Your task to perform on an android device: Clear the shopping cart on bestbuy.com. Add razer naga to the cart on bestbuy.com Image 0: 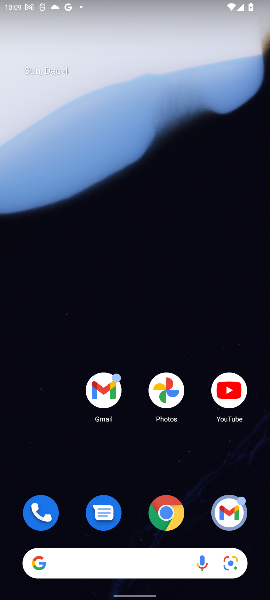
Step 0: click (166, 508)
Your task to perform on an android device: Clear the shopping cart on bestbuy.com. Add razer naga to the cart on bestbuy.com Image 1: 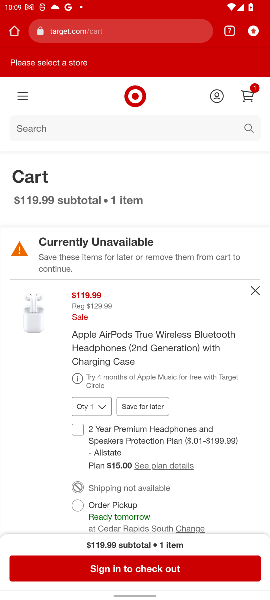
Step 1: click (233, 28)
Your task to perform on an android device: Clear the shopping cart on bestbuy.com. Add razer naga to the cart on bestbuy.com Image 2: 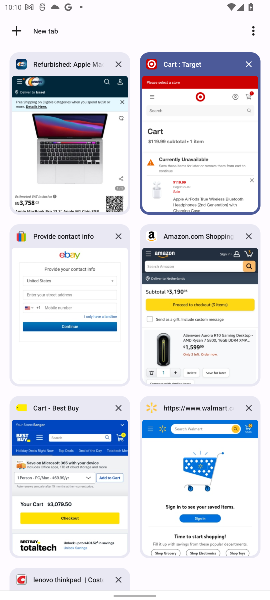
Step 2: click (76, 410)
Your task to perform on an android device: Clear the shopping cart on bestbuy.com. Add razer naga to the cart on bestbuy.com Image 3: 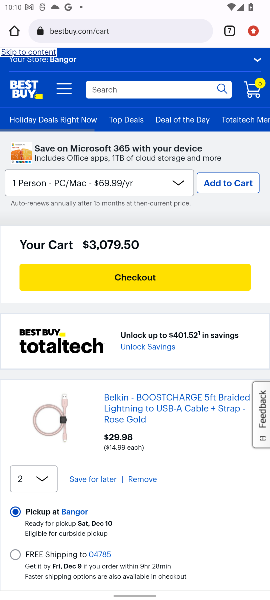
Step 3: click (133, 476)
Your task to perform on an android device: Clear the shopping cart on bestbuy.com. Add razer naga to the cart on bestbuy.com Image 4: 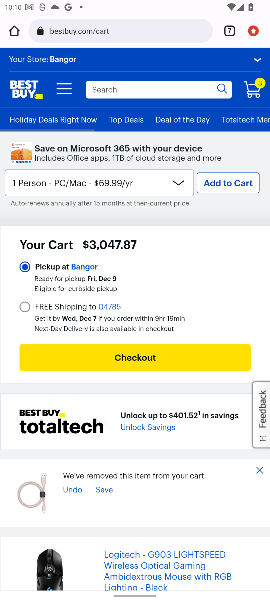
Step 4: drag from (130, 495) to (155, 303)
Your task to perform on an android device: Clear the shopping cart on bestbuy.com. Add razer naga to the cart on bestbuy.com Image 5: 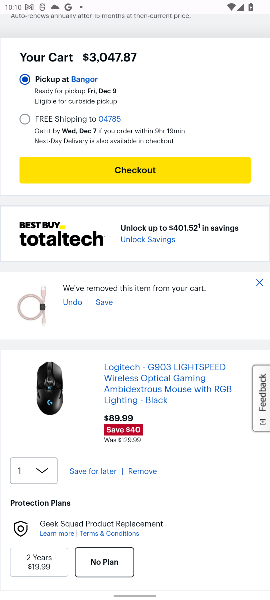
Step 5: click (142, 468)
Your task to perform on an android device: Clear the shopping cart on bestbuy.com. Add razer naga to the cart on bestbuy.com Image 6: 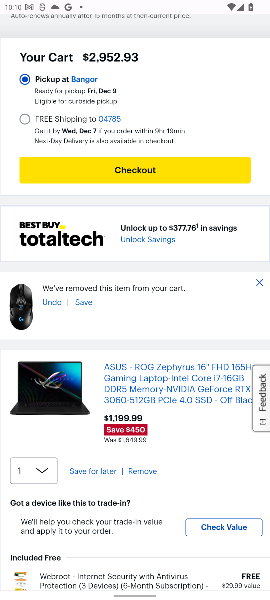
Step 6: click (142, 468)
Your task to perform on an android device: Clear the shopping cart on bestbuy.com. Add razer naga to the cart on bestbuy.com Image 7: 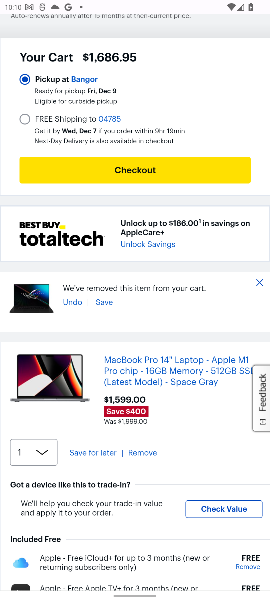
Step 7: click (139, 450)
Your task to perform on an android device: Clear the shopping cart on bestbuy.com. Add razer naga to the cart on bestbuy.com Image 8: 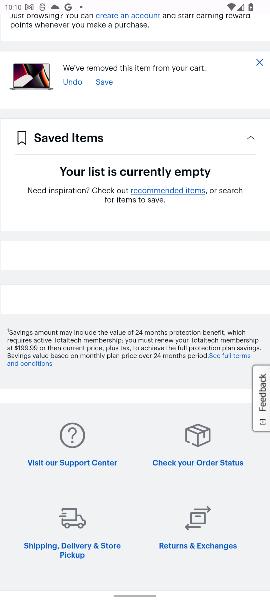
Step 8: drag from (134, 52) to (126, 354)
Your task to perform on an android device: Clear the shopping cart on bestbuy.com. Add razer naga to the cart on bestbuy.com Image 9: 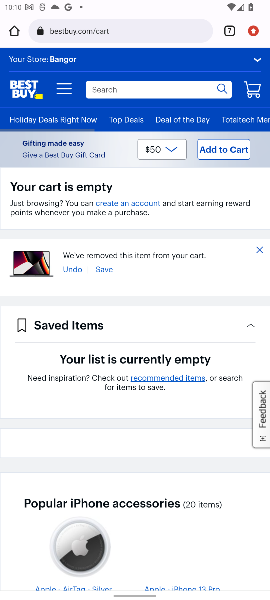
Step 9: click (139, 89)
Your task to perform on an android device: Clear the shopping cart on bestbuy.com. Add razer naga to the cart on bestbuy.com Image 10: 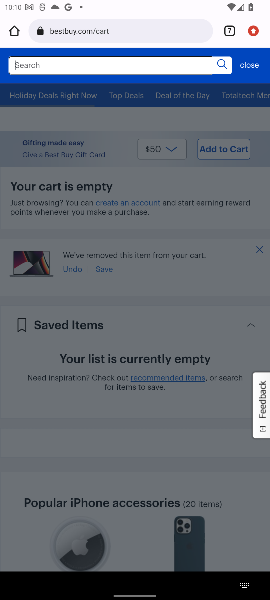
Step 10: type "razer naga"
Your task to perform on an android device: Clear the shopping cart on bestbuy.com. Add razer naga to the cart on bestbuy.com Image 11: 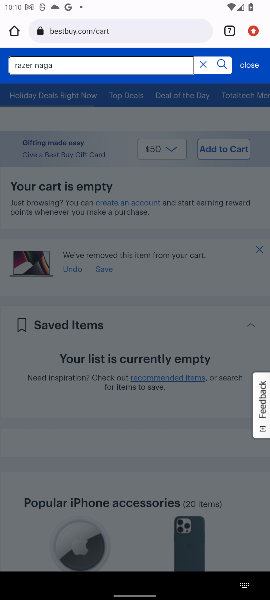
Step 11: click (224, 61)
Your task to perform on an android device: Clear the shopping cart on bestbuy.com. Add razer naga to the cart on bestbuy.com Image 12: 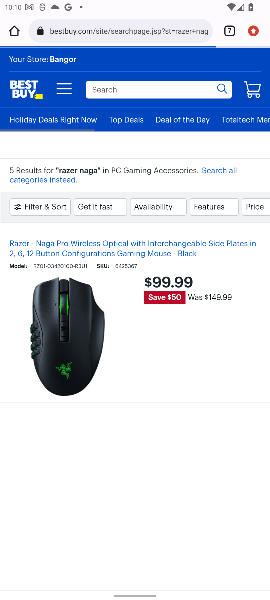
Step 12: click (14, 95)
Your task to perform on an android device: Clear the shopping cart on bestbuy.com. Add razer naga to the cart on bestbuy.com Image 13: 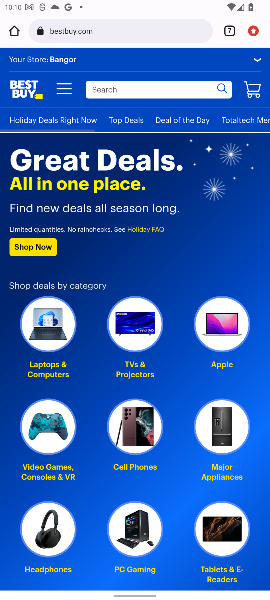
Step 13: press back button
Your task to perform on an android device: Clear the shopping cart on bestbuy.com. Add razer naga to the cart on bestbuy.com Image 14: 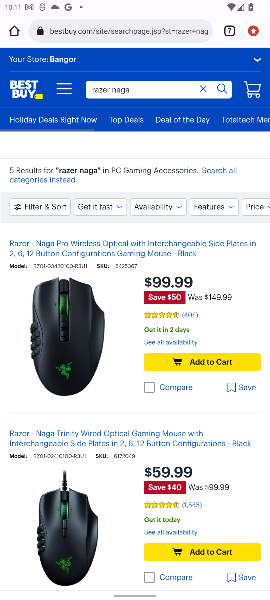
Step 14: click (212, 360)
Your task to perform on an android device: Clear the shopping cart on bestbuy.com. Add razer naga to the cart on bestbuy.com Image 15: 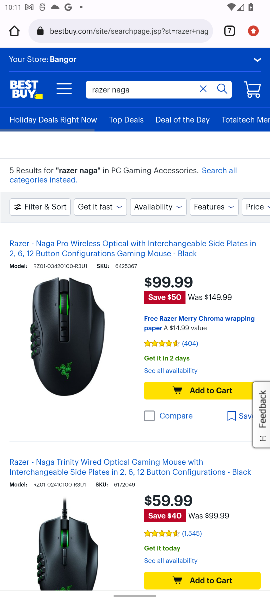
Step 15: click (204, 388)
Your task to perform on an android device: Clear the shopping cart on bestbuy.com. Add razer naga to the cart on bestbuy.com Image 16: 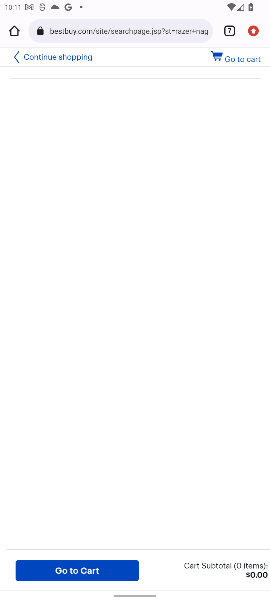
Step 16: task complete